Your task to perform on an android device: change keyboard looks Image 0: 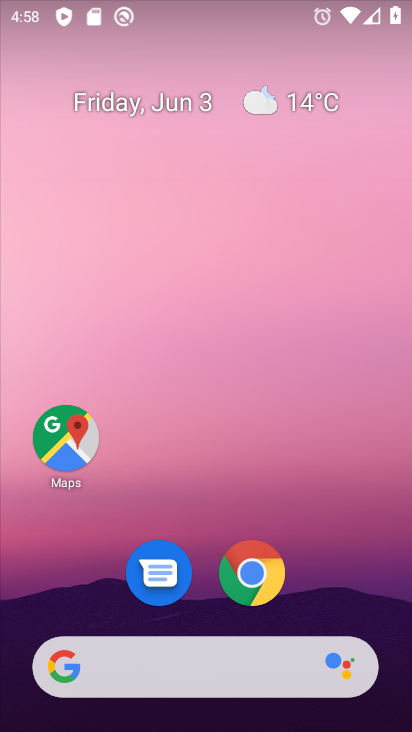
Step 0: drag from (322, 586) to (265, 137)
Your task to perform on an android device: change keyboard looks Image 1: 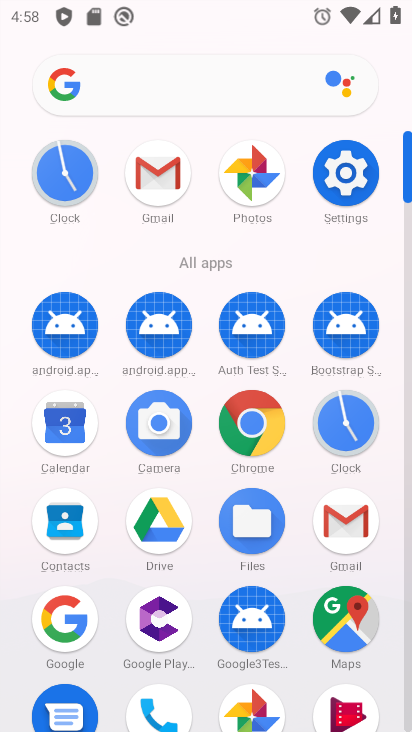
Step 1: click (328, 172)
Your task to perform on an android device: change keyboard looks Image 2: 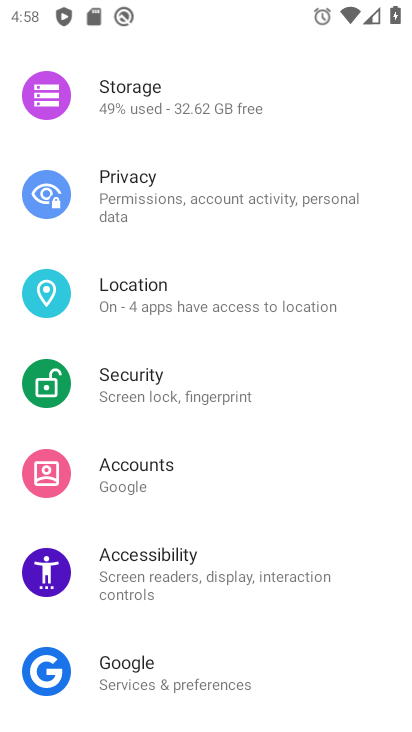
Step 2: drag from (246, 517) to (264, 39)
Your task to perform on an android device: change keyboard looks Image 3: 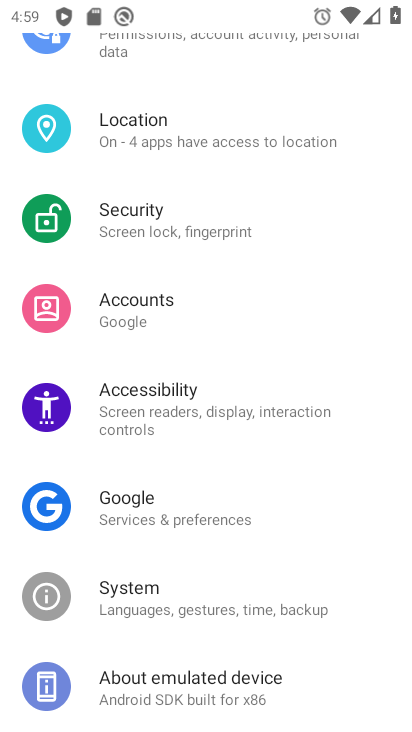
Step 3: click (177, 605)
Your task to perform on an android device: change keyboard looks Image 4: 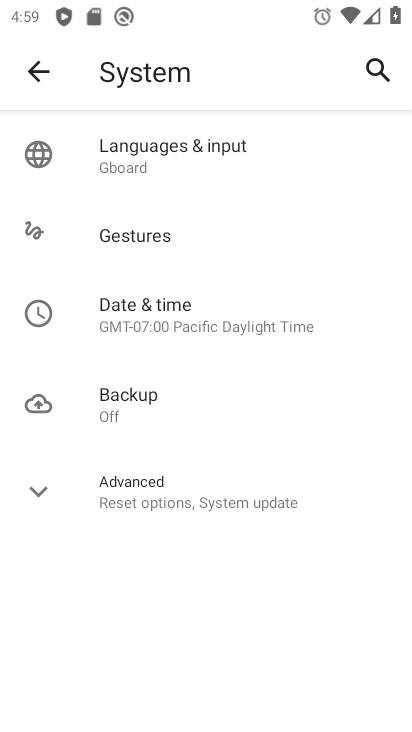
Step 4: click (173, 156)
Your task to perform on an android device: change keyboard looks Image 5: 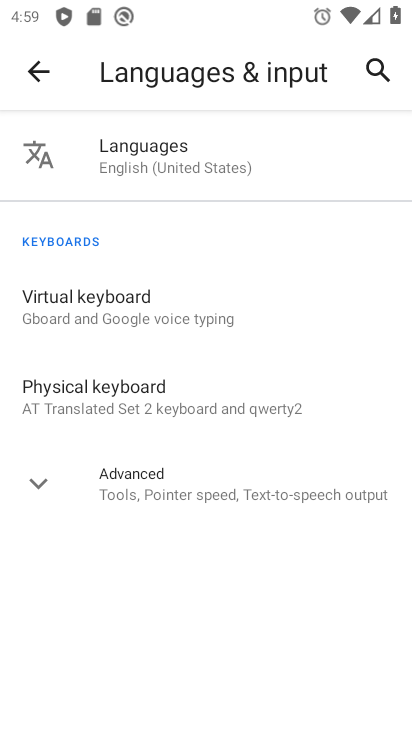
Step 5: click (167, 316)
Your task to perform on an android device: change keyboard looks Image 6: 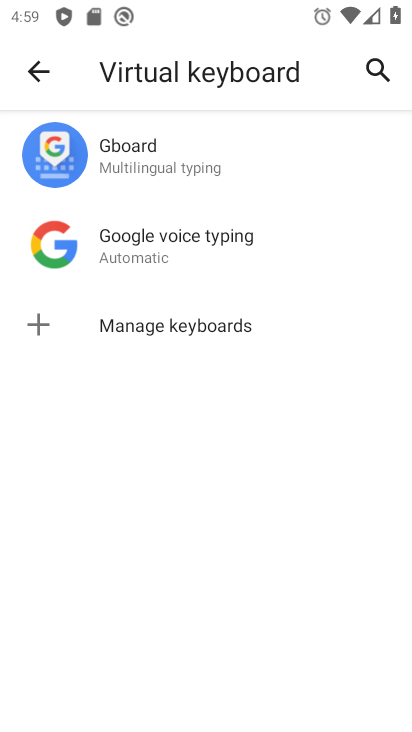
Step 6: click (143, 168)
Your task to perform on an android device: change keyboard looks Image 7: 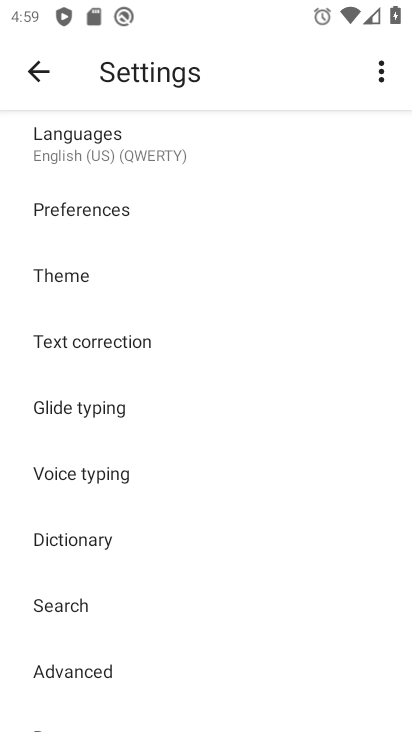
Step 7: click (119, 282)
Your task to perform on an android device: change keyboard looks Image 8: 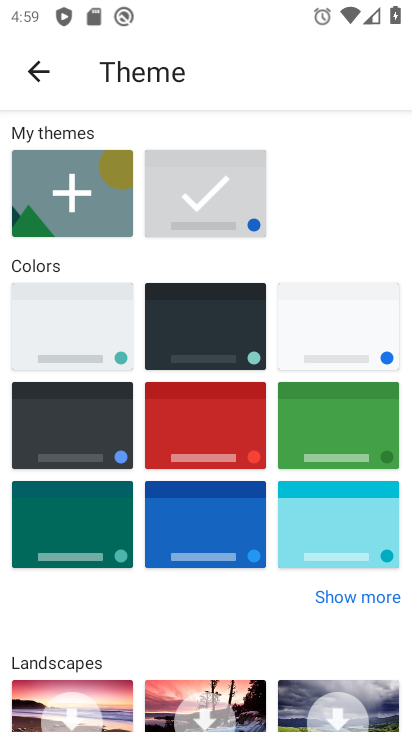
Step 8: click (102, 313)
Your task to perform on an android device: change keyboard looks Image 9: 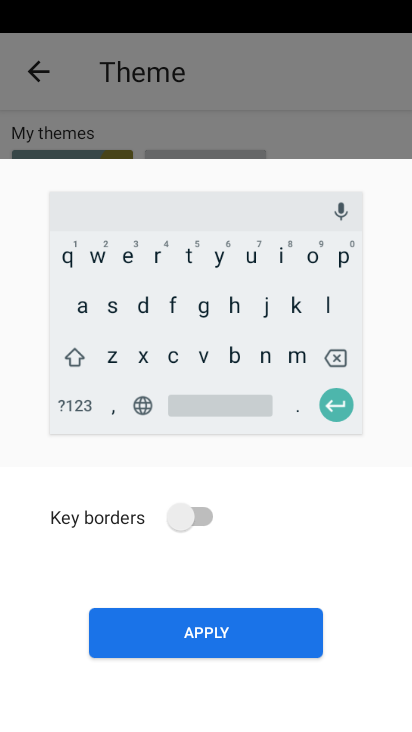
Step 9: click (199, 615)
Your task to perform on an android device: change keyboard looks Image 10: 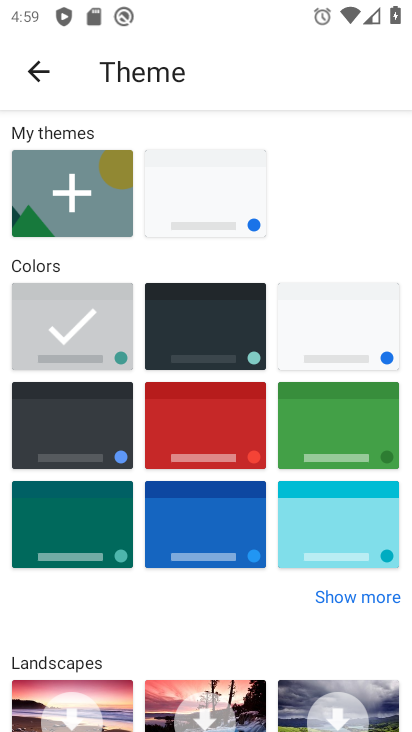
Step 10: task complete